Your task to perform on an android device: toggle javascript in the chrome app Image 0: 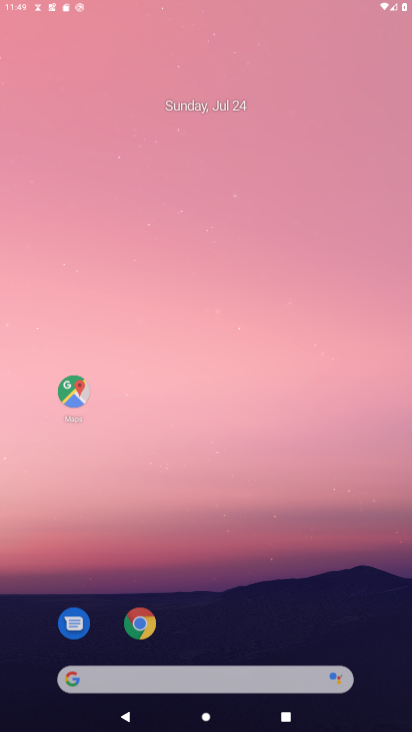
Step 0: click (393, 345)
Your task to perform on an android device: toggle javascript in the chrome app Image 1: 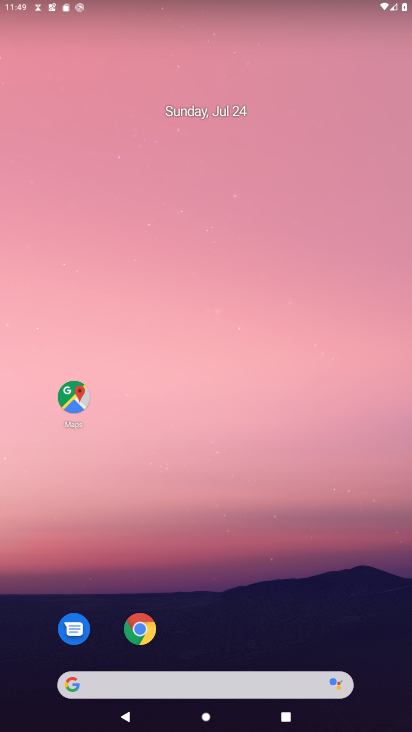
Step 1: click (137, 629)
Your task to perform on an android device: toggle javascript in the chrome app Image 2: 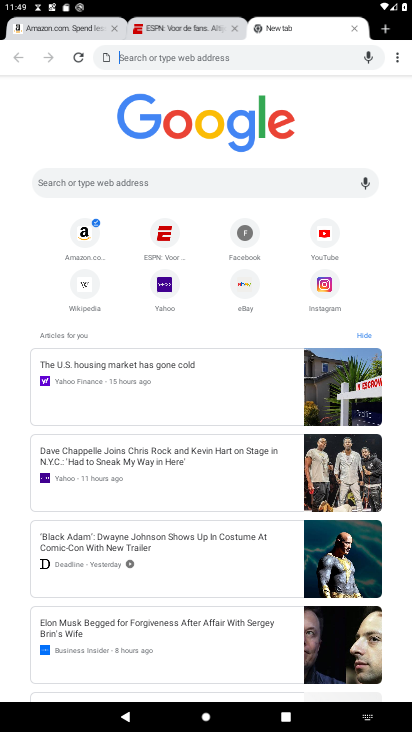
Step 2: click (401, 63)
Your task to perform on an android device: toggle javascript in the chrome app Image 3: 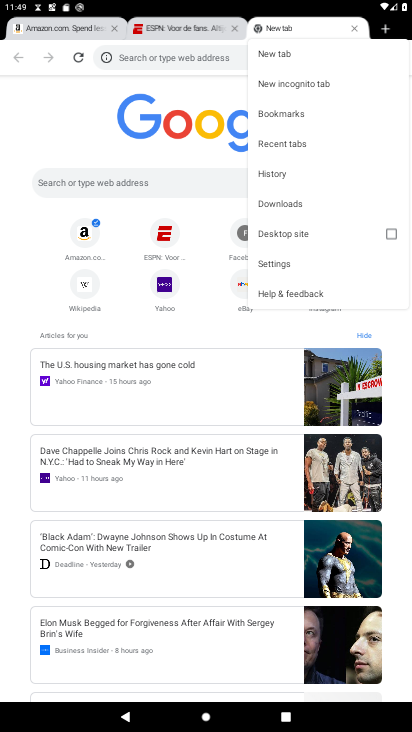
Step 3: click (281, 268)
Your task to perform on an android device: toggle javascript in the chrome app Image 4: 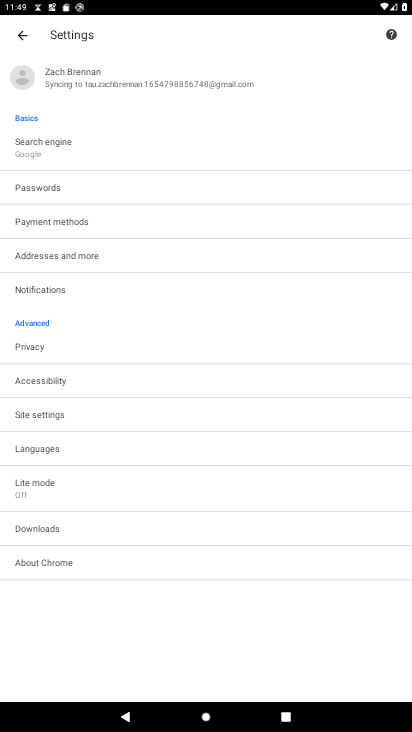
Step 4: click (58, 412)
Your task to perform on an android device: toggle javascript in the chrome app Image 5: 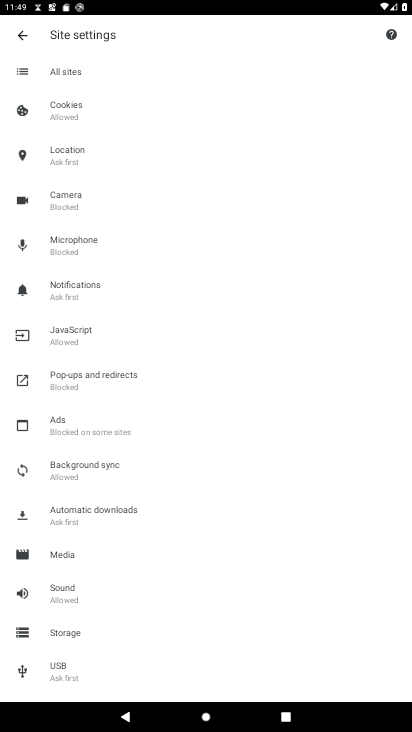
Step 5: click (77, 343)
Your task to perform on an android device: toggle javascript in the chrome app Image 6: 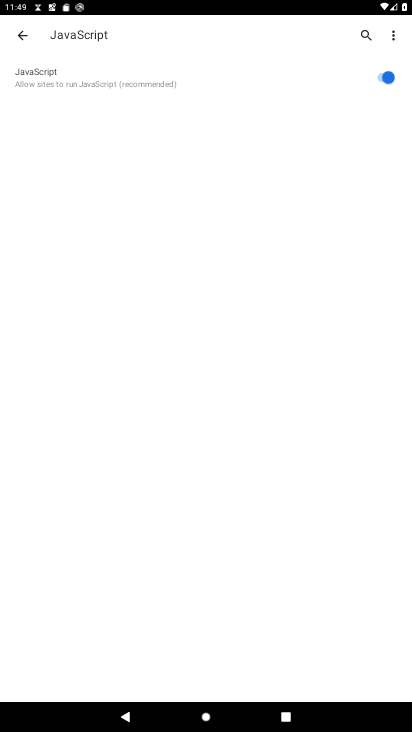
Step 6: click (358, 74)
Your task to perform on an android device: toggle javascript in the chrome app Image 7: 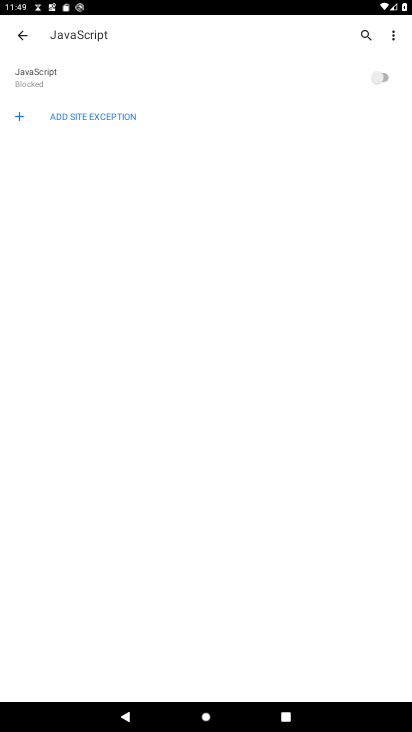
Step 7: task complete